Your task to perform on an android device: Go to Yahoo.com Image 0: 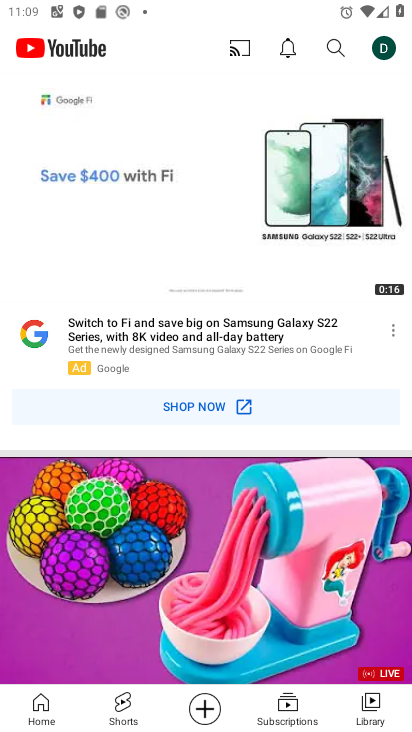
Step 0: press home button
Your task to perform on an android device: Go to Yahoo.com Image 1: 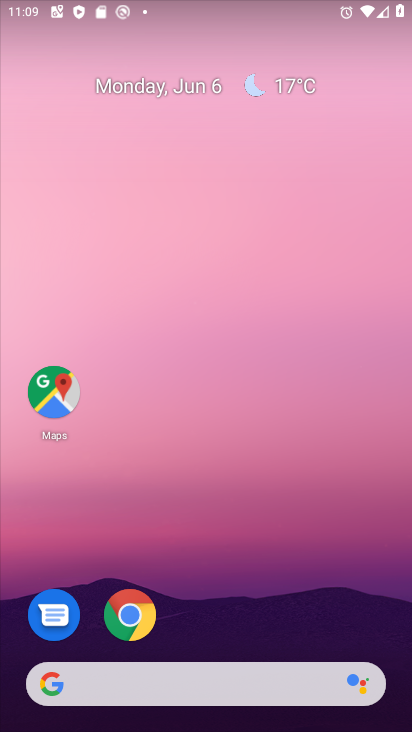
Step 1: click (128, 609)
Your task to perform on an android device: Go to Yahoo.com Image 2: 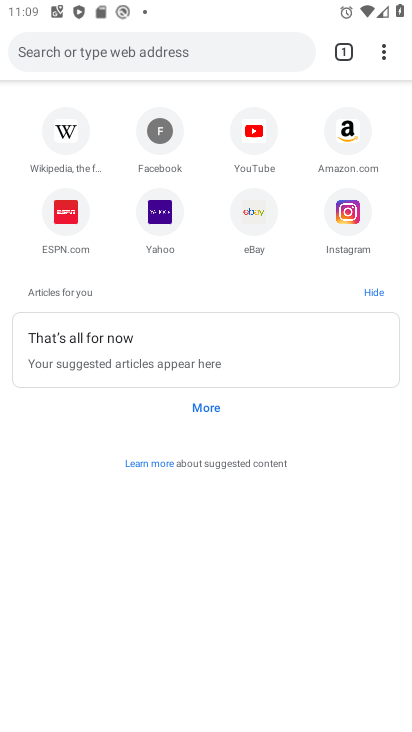
Step 2: click (161, 213)
Your task to perform on an android device: Go to Yahoo.com Image 3: 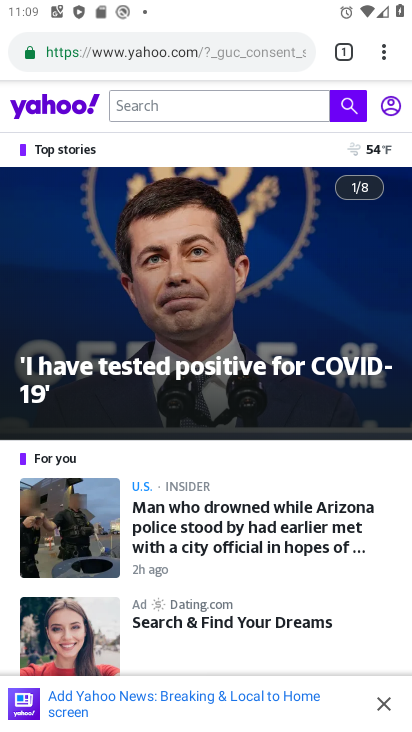
Step 3: task complete